Your task to perform on an android device: Open Yahoo.com Image 0: 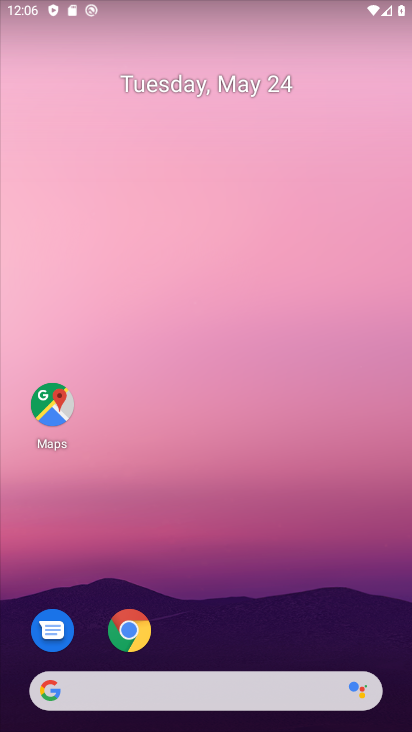
Step 0: click (139, 628)
Your task to perform on an android device: Open Yahoo.com Image 1: 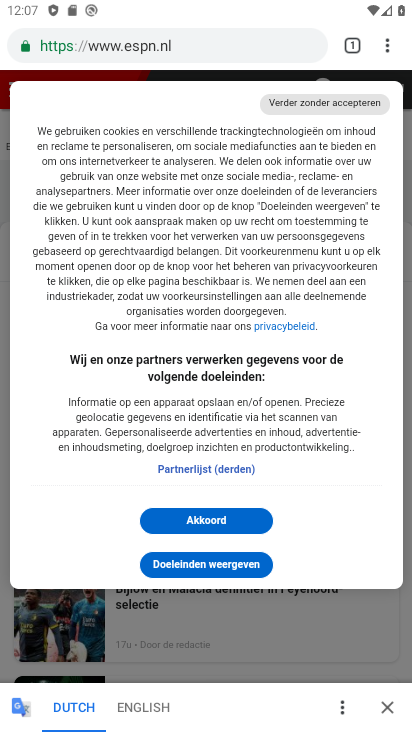
Step 1: click (339, 49)
Your task to perform on an android device: Open Yahoo.com Image 2: 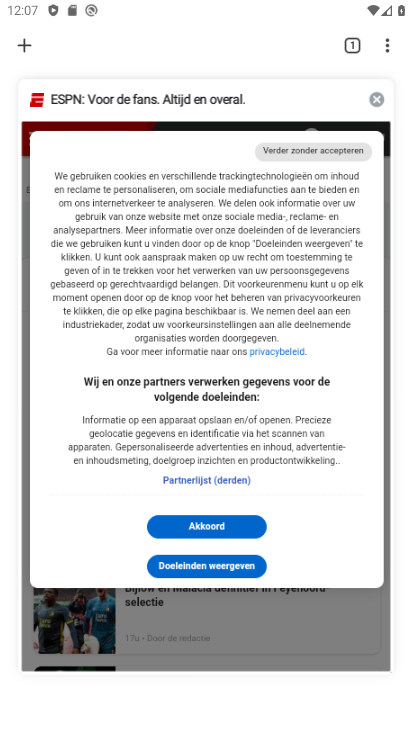
Step 2: click (380, 100)
Your task to perform on an android device: Open Yahoo.com Image 3: 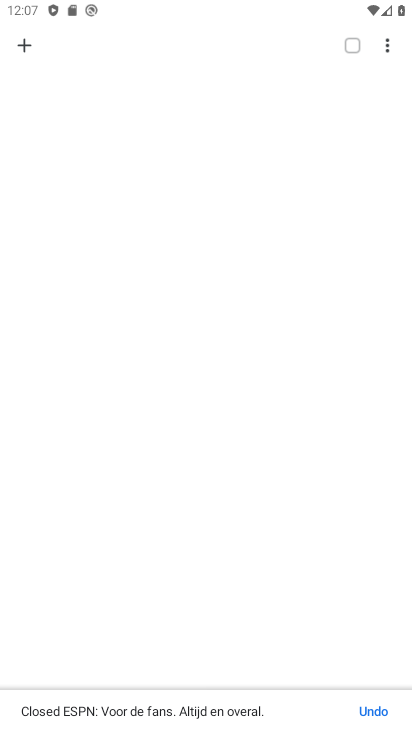
Step 3: click (14, 44)
Your task to perform on an android device: Open Yahoo.com Image 4: 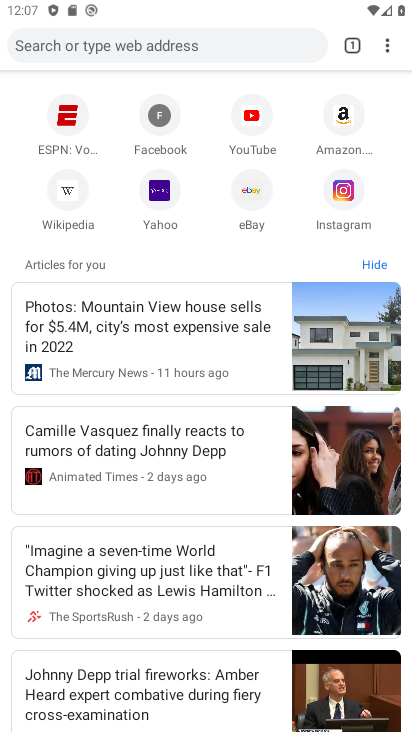
Step 4: click (165, 199)
Your task to perform on an android device: Open Yahoo.com Image 5: 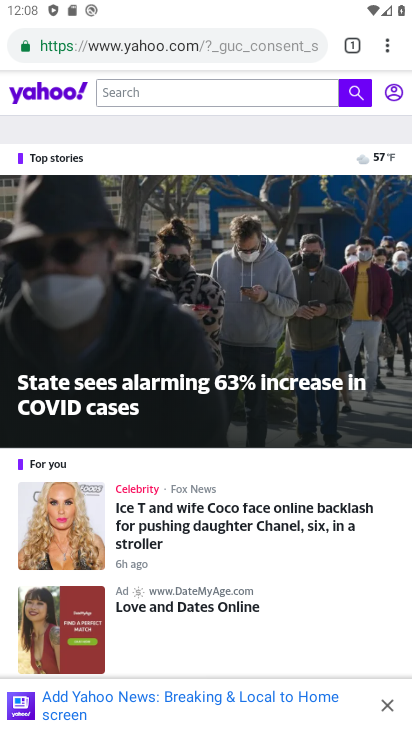
Step 5: task complete